Your task to perform on an android device: change the clock display to show seconds Image 0: 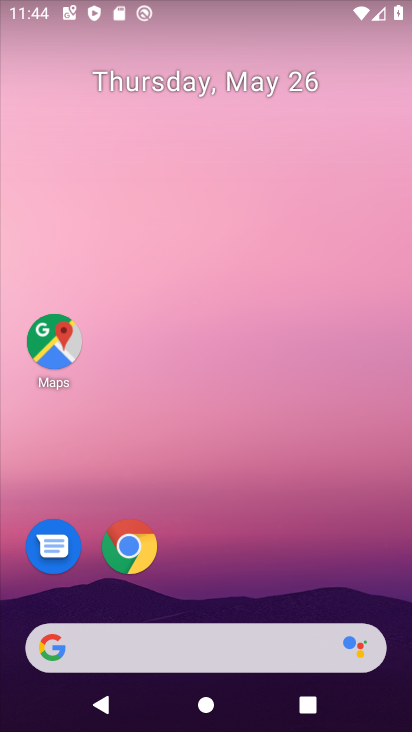
Step 0: drag from (278, 504) to (156, 10)
Your task to perform on an android device: change the clock display to show seconds Image 1: 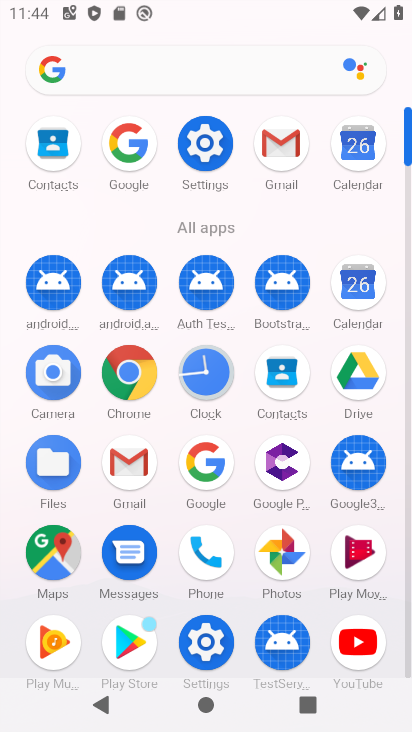
Step 1: click (202, 378)
Your task to perform on an android device: change the clock display to show seconds Image 2: 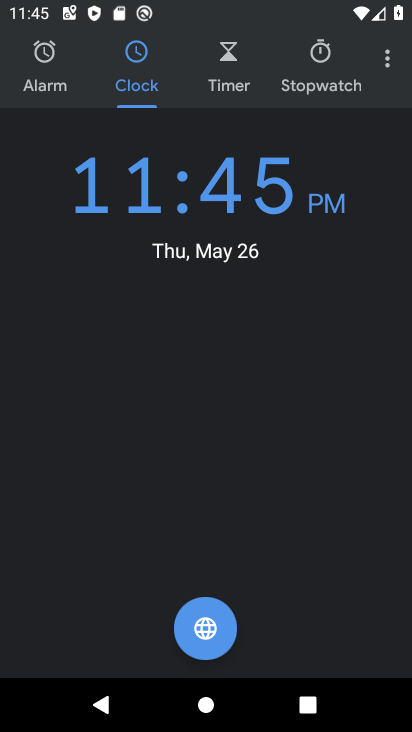
Step 2: click (383, 61)
Your task to perform on an android device: change the clock display to show seconds Image 3: 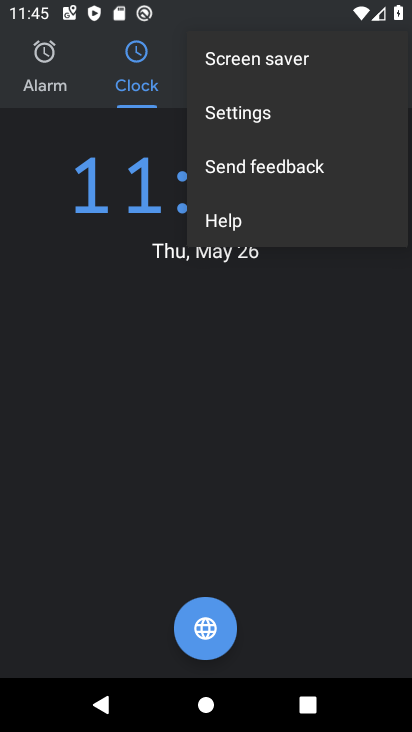
Step 3: click (246, 113)
Your task to perform on an android device: change the clock display to show seconds Image 4: 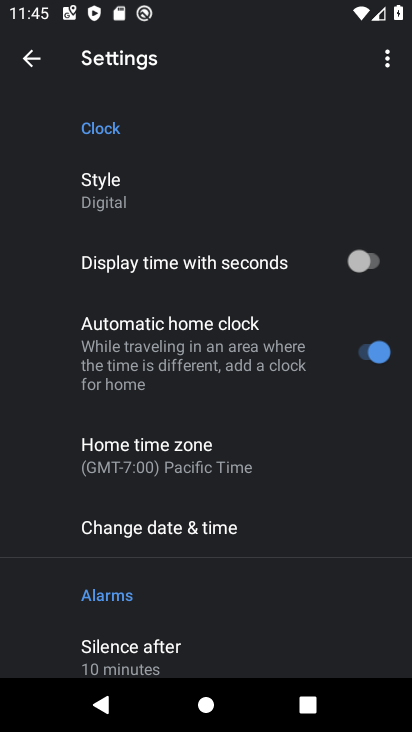
Step 4: click (365, 265)
Your task to perform on an android device: change the clock display to show seconds Image 5: 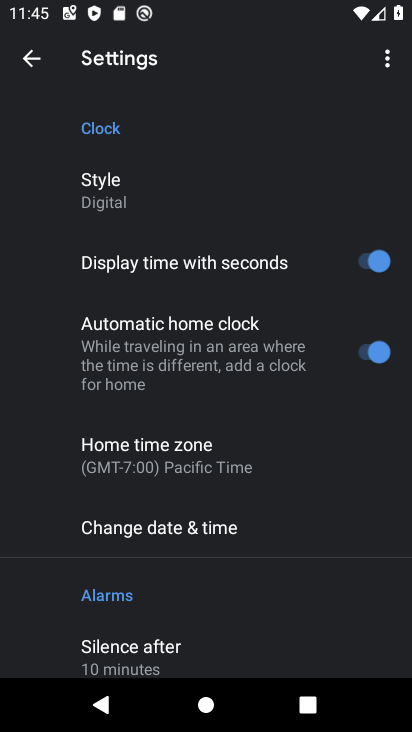
Step 5: task complete